Your task to perform on an android device: toggle improve location accuracy Image 0: 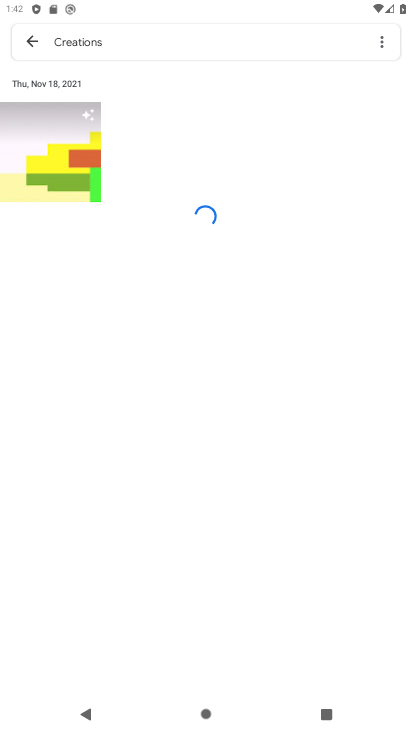
Step 0: press home button
Your task to perform on an android device: toggle improve location accuracy Image 1: 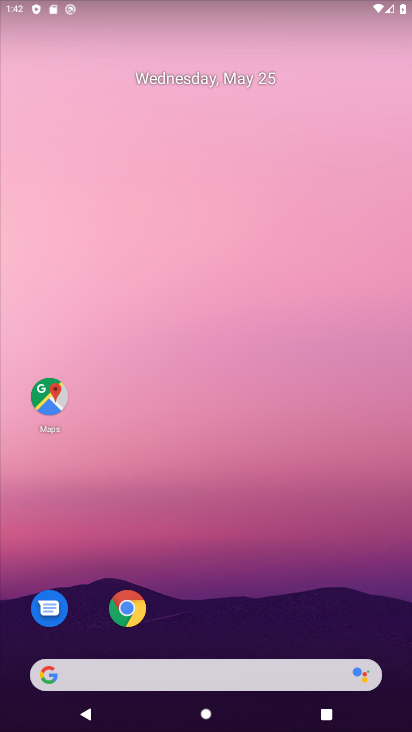
Step 1: drag from (219, 631) to (227, 118)
Your task to perform on an android device: toggle improve location accuracy Image 2: 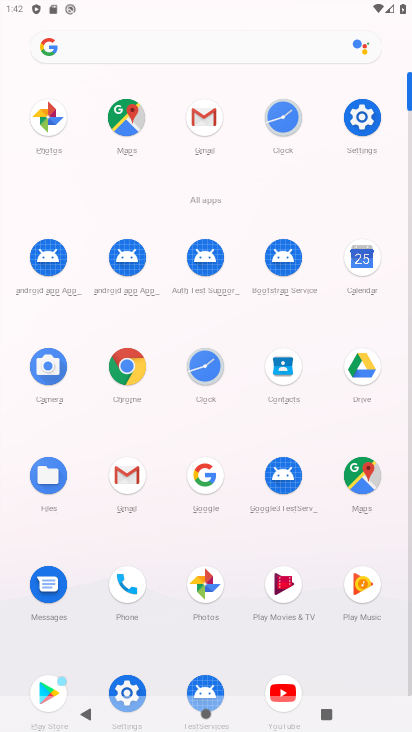
Step 2: click (355, 126)
Your task to perform on an android device: toggle improve location accuracy Image 3: 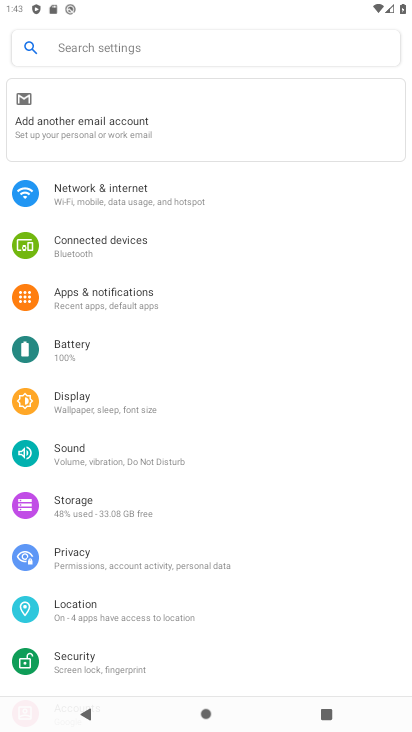
Step 3: click (134, 608)
Your task to perform on an android device: toggle improve location accuracy Image 4: 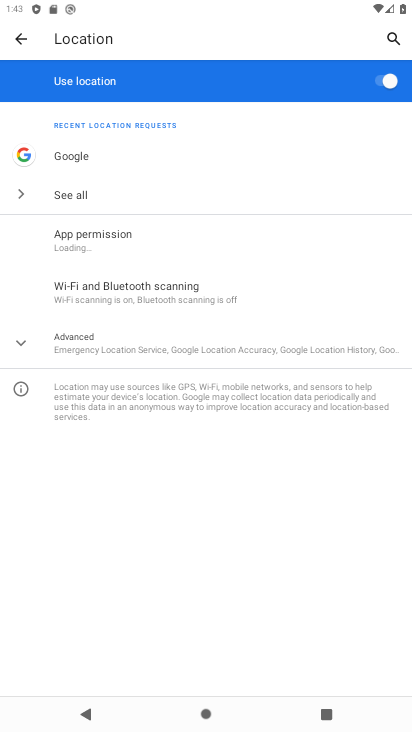
Step 4: click (229, 340)
Your task to perform on an android device: toggle improve location accuracy Image 5: 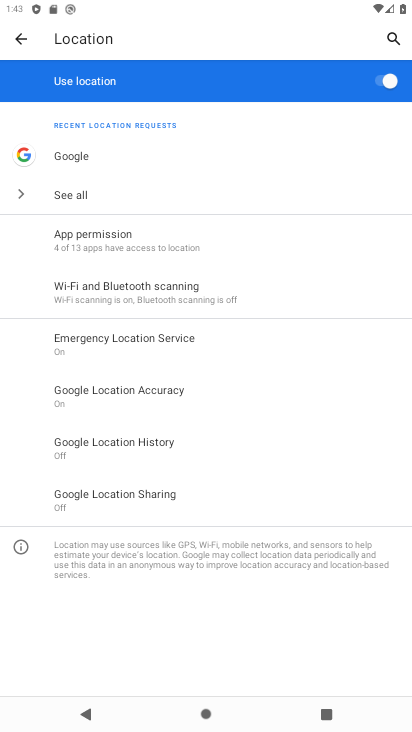
Step 5: click (226, 382)
Your task to perform on an android device: toggle improve location accuracy Image 6: 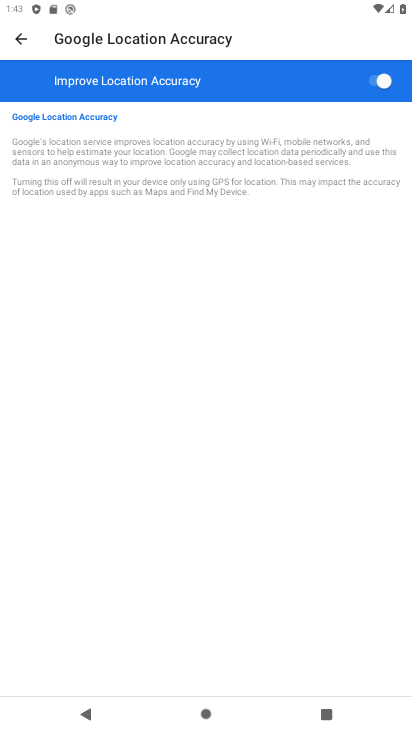
Step 6: click (377, 89)
Your task to perform on an android device: toggle improve location accuracy Image 7: 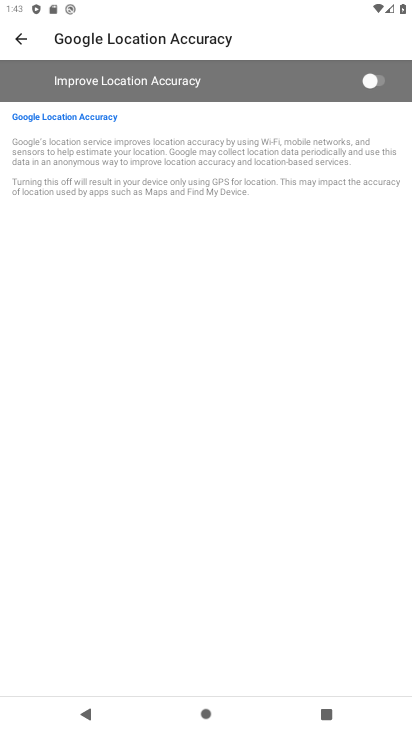
Step 7: task complete